Your task to perform on an android device: open app "YouTube Kids" (install if not already installed) Image 0: 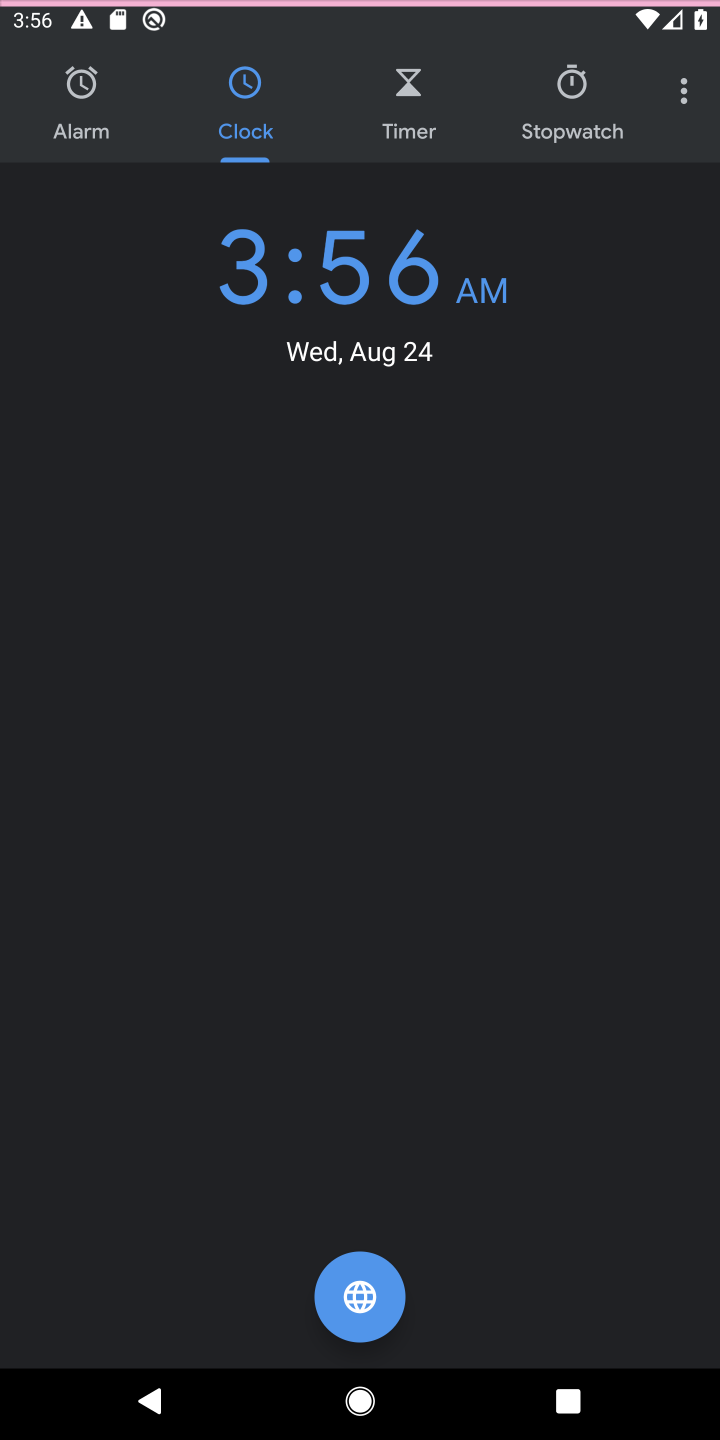
Step 0: press home button
Your task to perform on an android device: open app "YouTube Kids" (install if not already installed) Image 1: 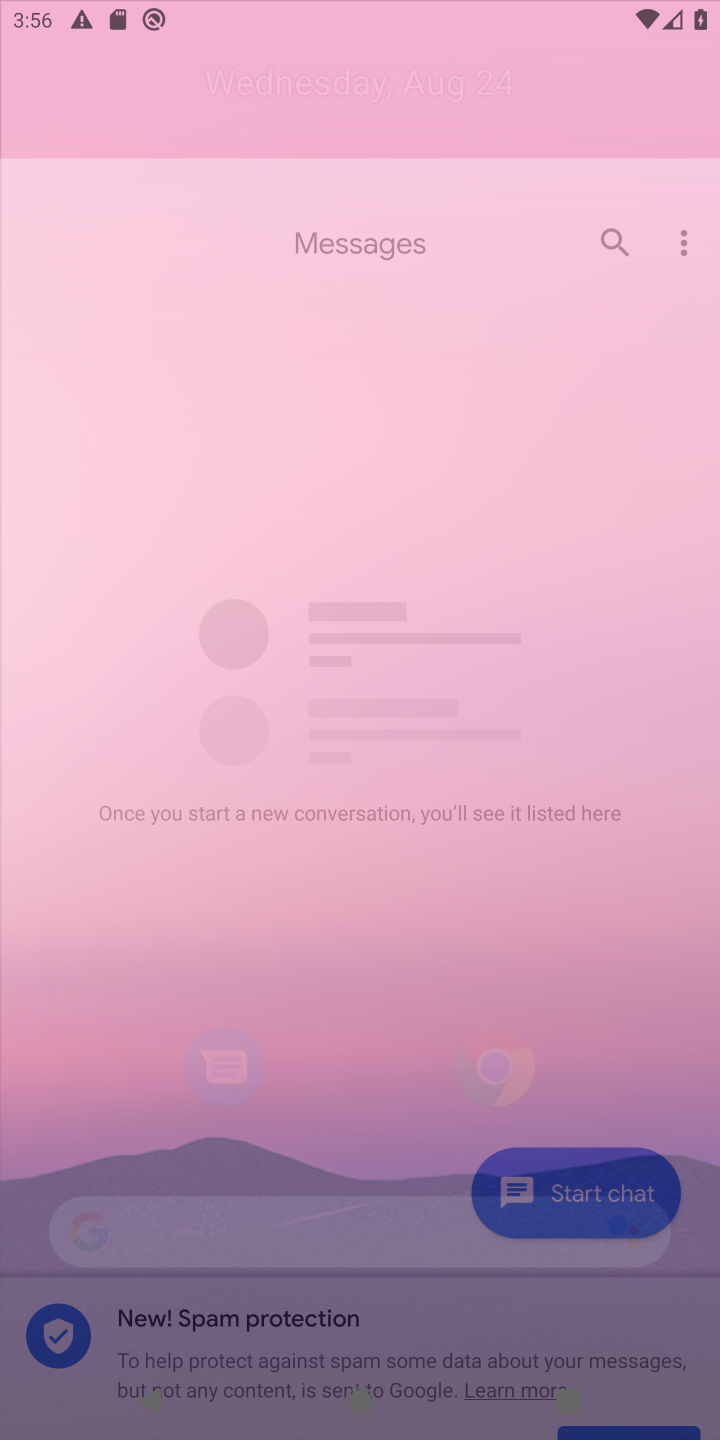
Step 1: press home button
Your task to perform on an android device: open app "YouTube Kids" (install if not already installed) Image 2: 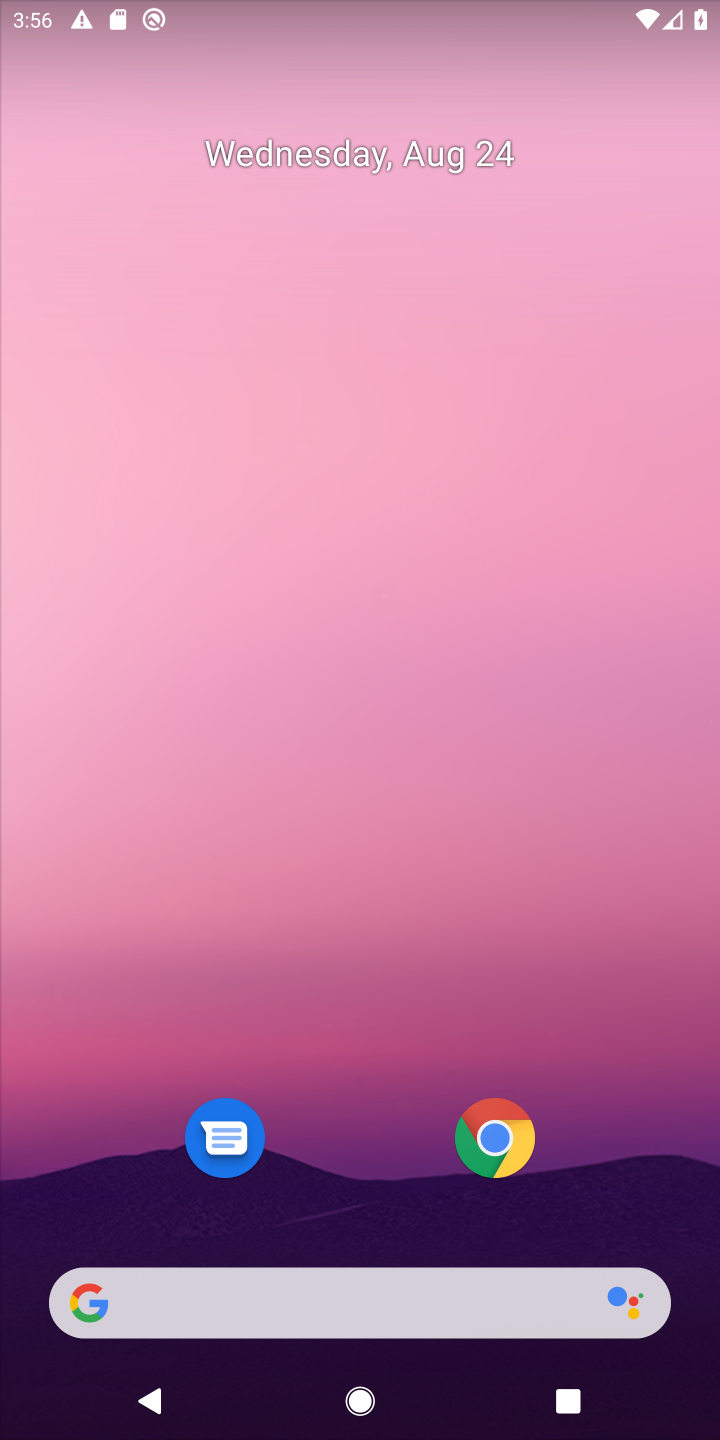
Step 2: drag from (353, 1220) to (361, 334)
Your task to perform on an android device: open app "YouTube Kids" (install if not already installed) Image 3: 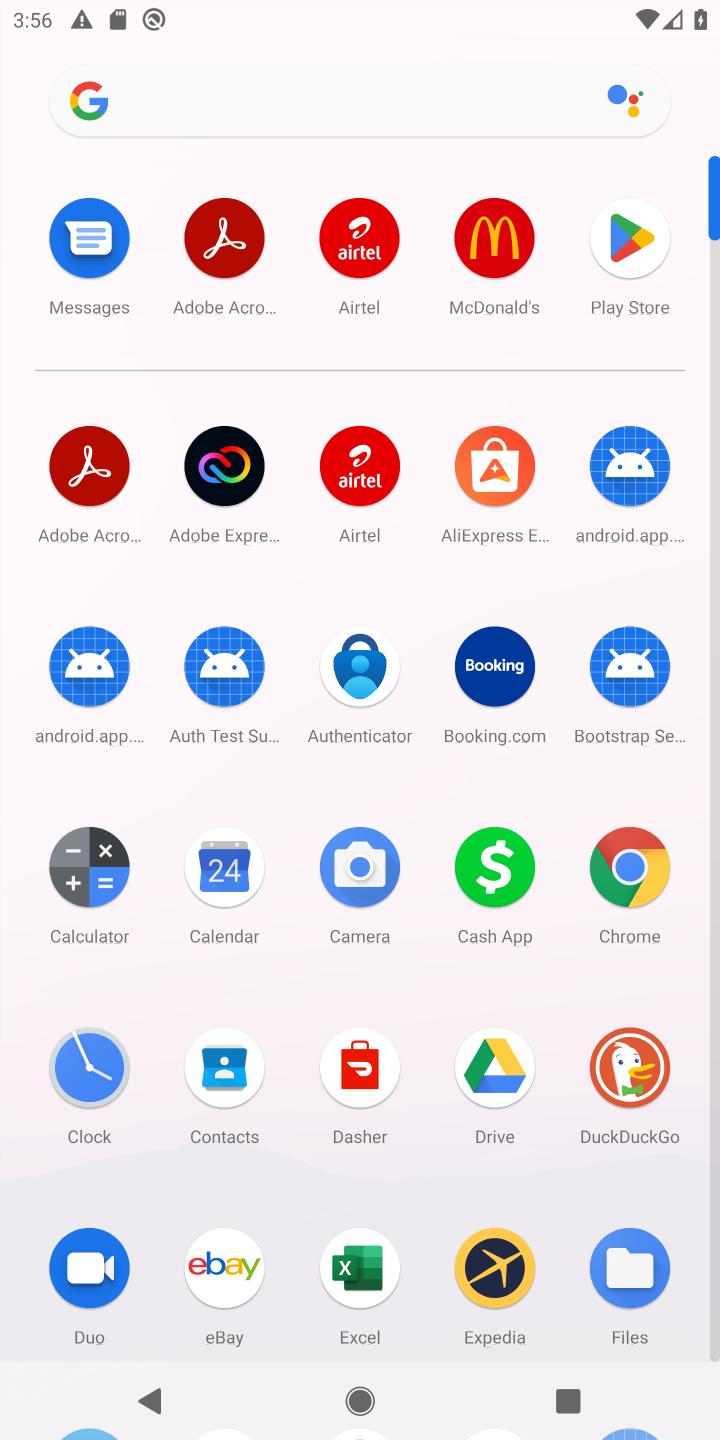
Step 3: click (636, 245)
Your task to perform on an android device: open app "YouTube Kids" (install if not already installed) Image 4: 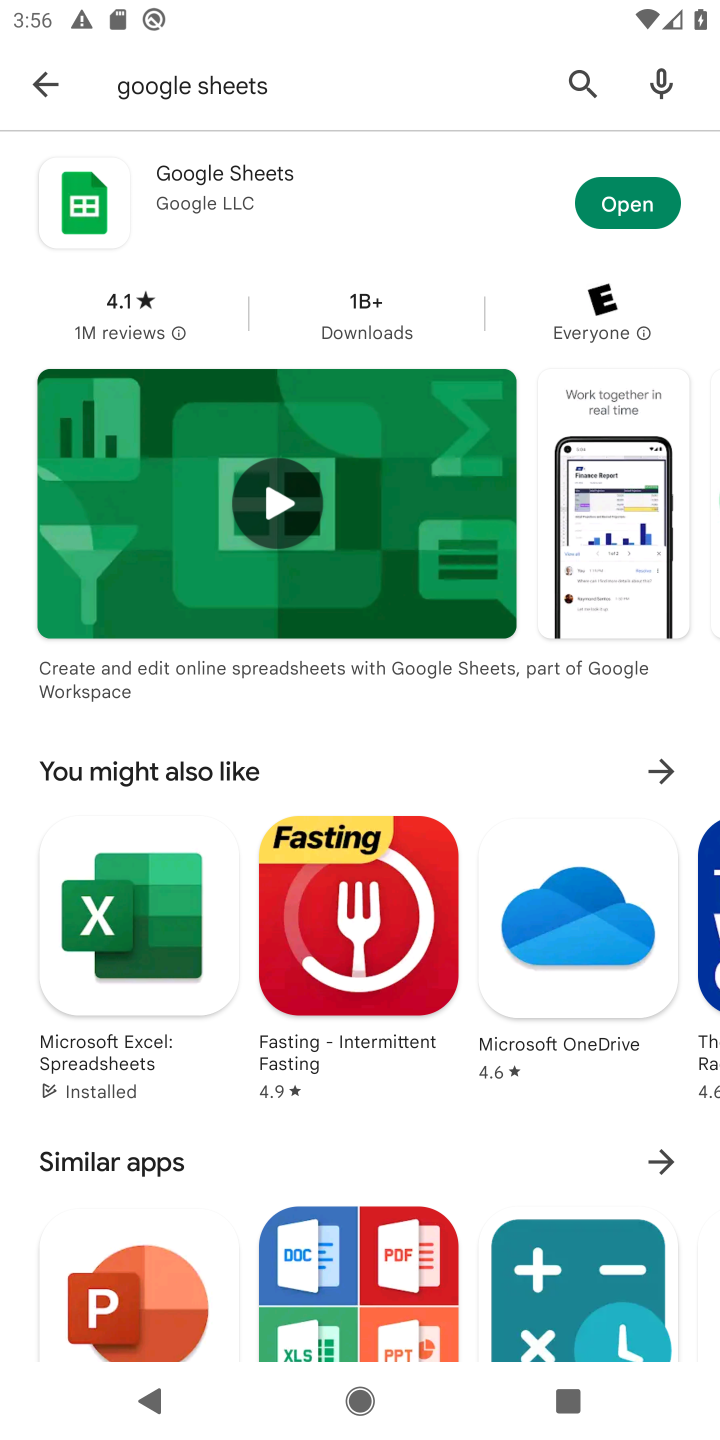
Step 4: click (580, 85)
Your task to perform on an android device: open app "YouTube Kids" (install if not already installed) Image 5: 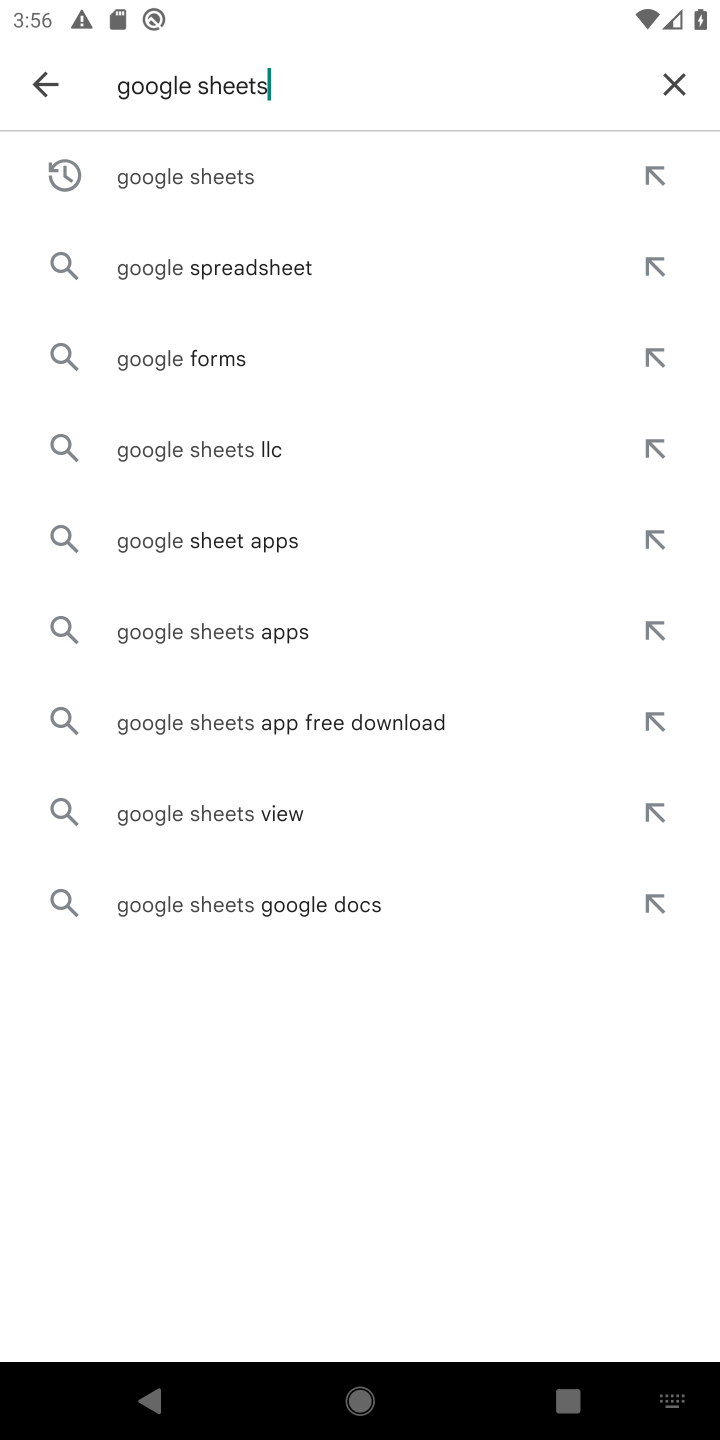
Step 5: click (671, 73)
Your task to perform on an android device: open app "YouTube Kids" (install if not already installed) Image 6: 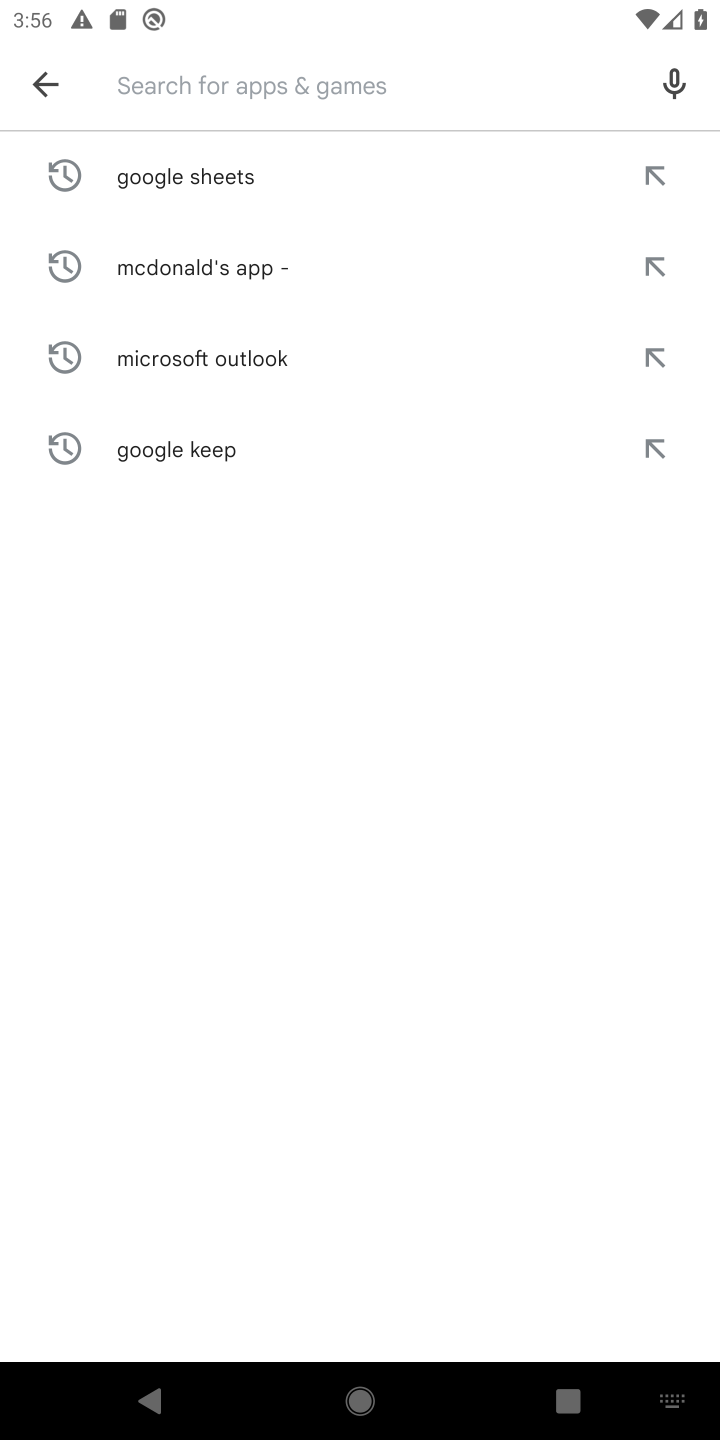
Step 6: type "YouTube Kids"
Your task to perform on an android device: open app "YouTube Kids" (install if not already installed) Image 7: 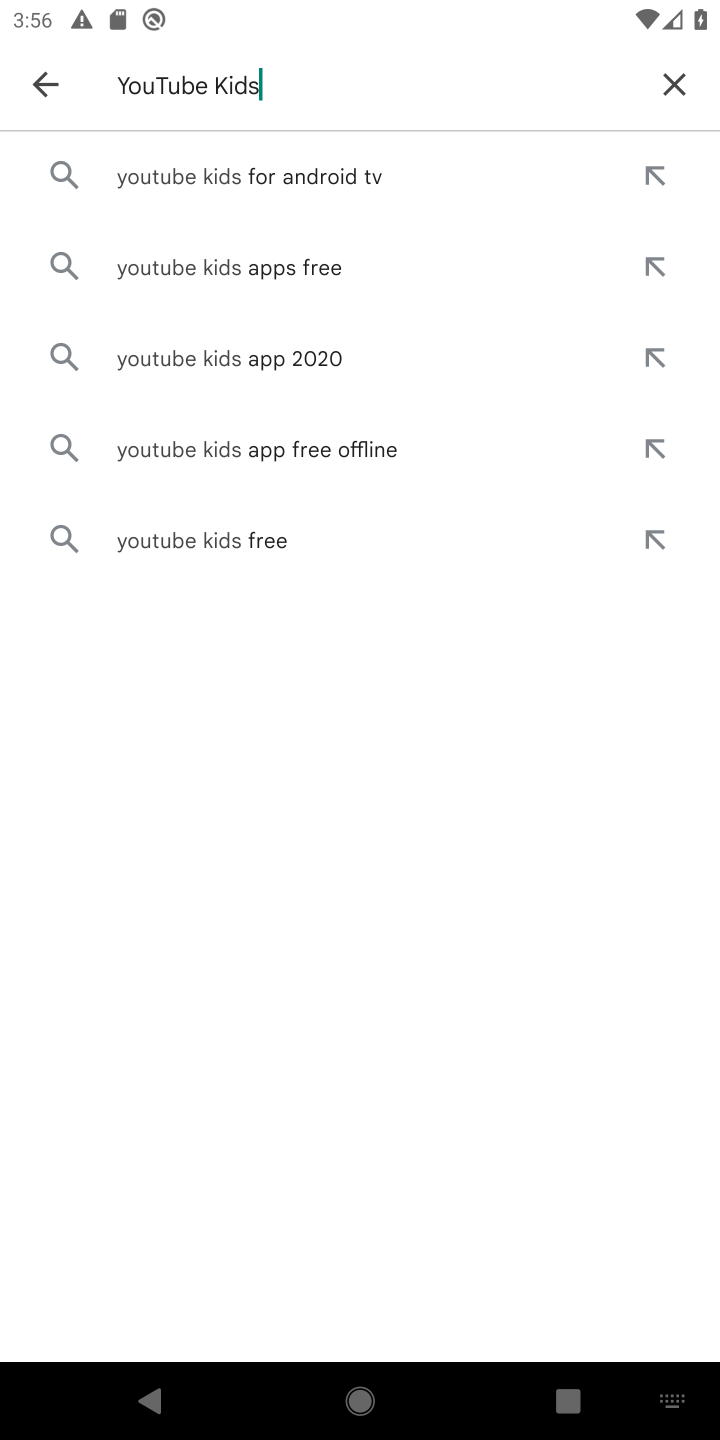
Step 7: click (211, 262)
Your task to perform on an android device: open app "YouTube Kids" (install if not already installed) Image 8: 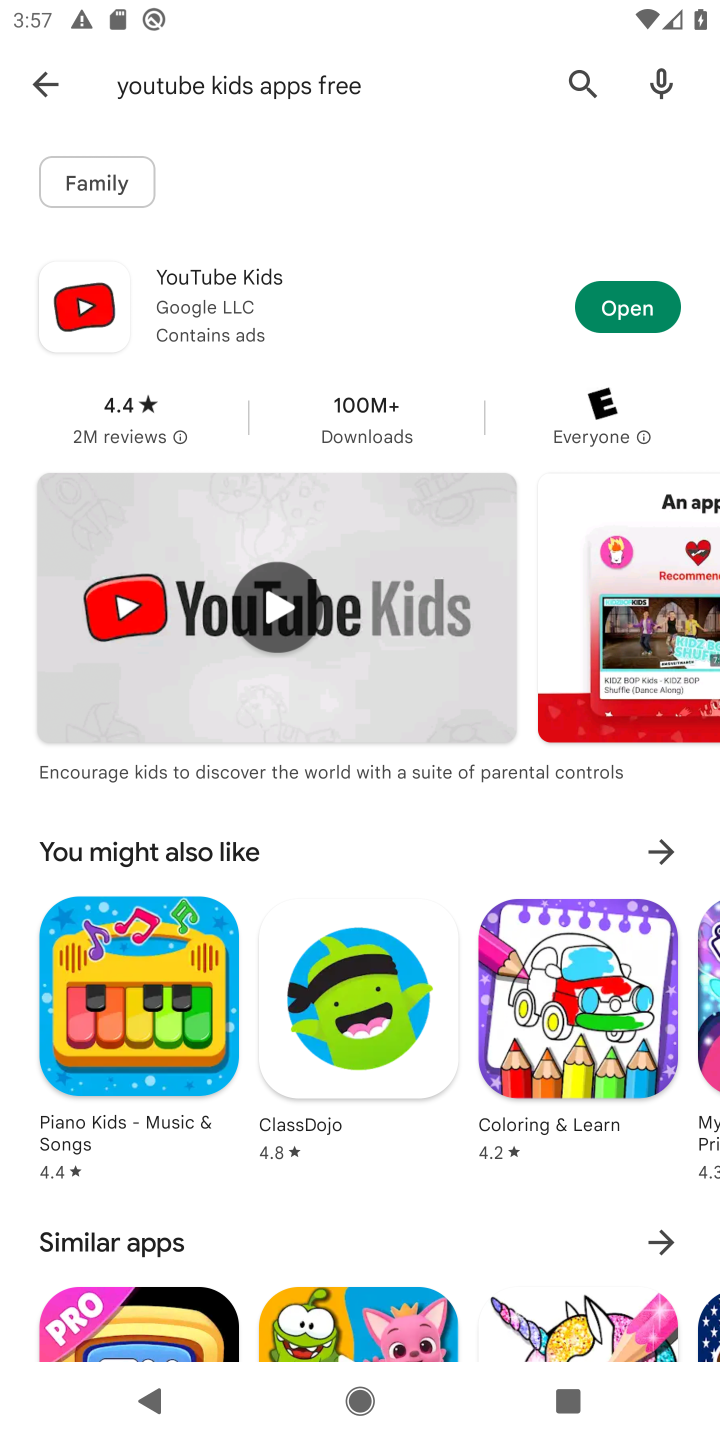
Step 8: click (590, 316)
Your task to perform on an android device: open app "YouTube Kids" (install if not already installed) Image 9: 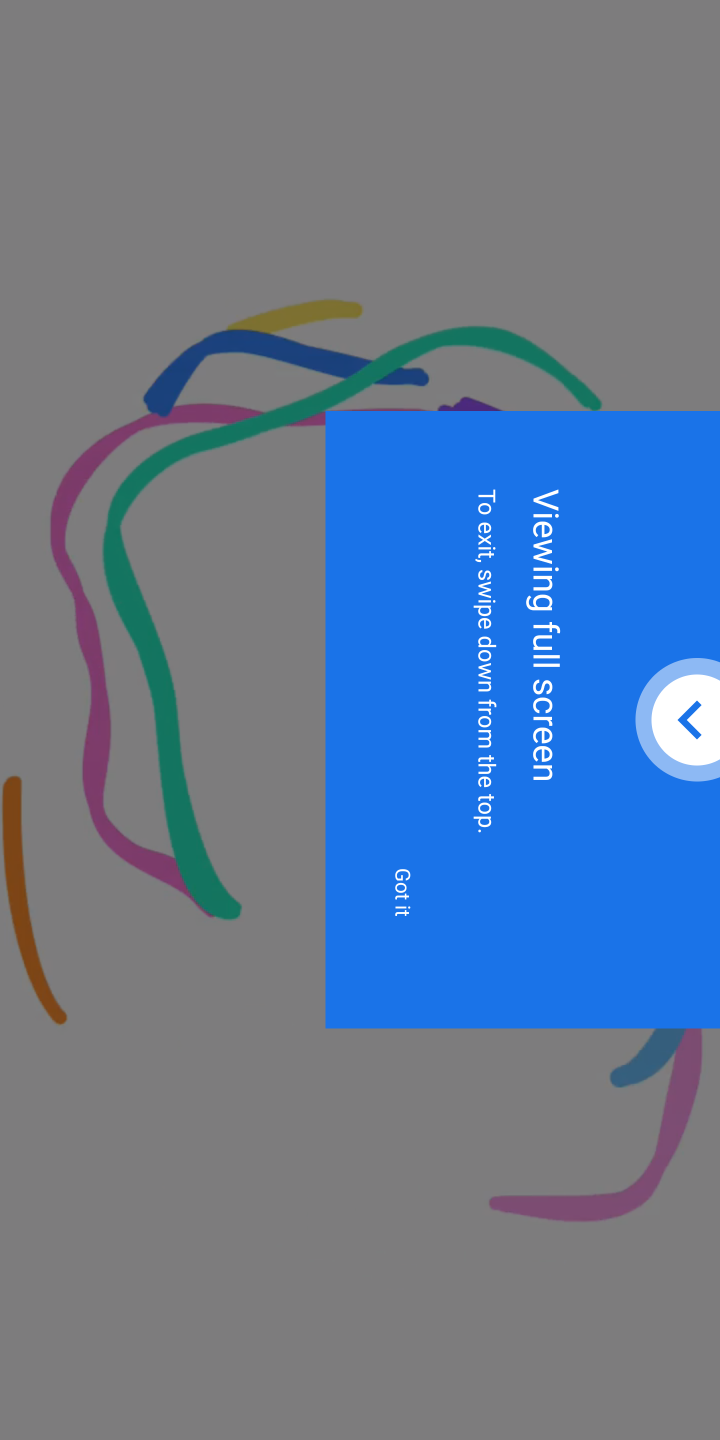
Step 9: task complete